Your task to perform on an android device: allow cookies in the chrome app Image 0: 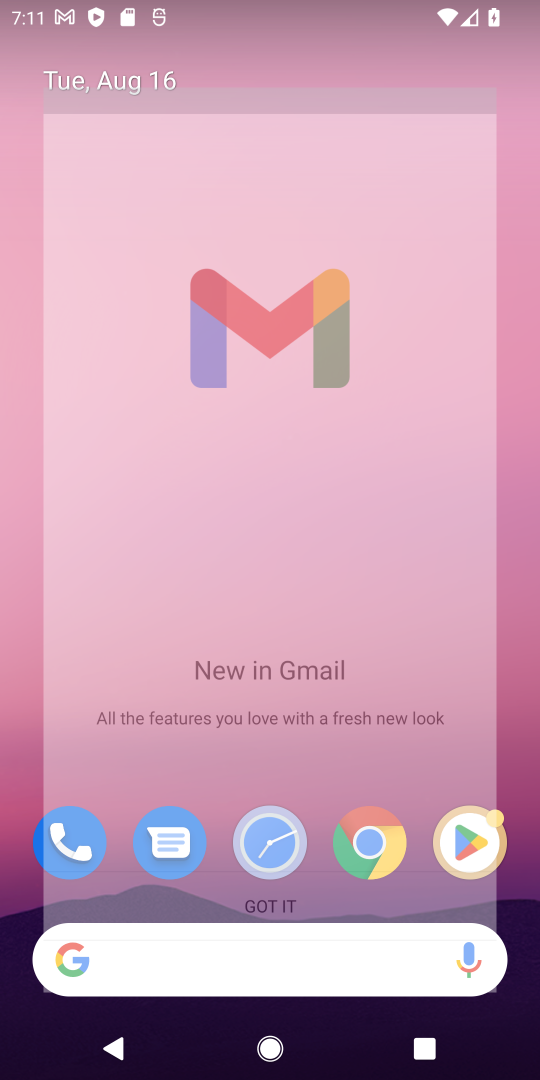
Step 0: press home button
Your task to perform on an android device: allow cookies in the chrome app Image 1: 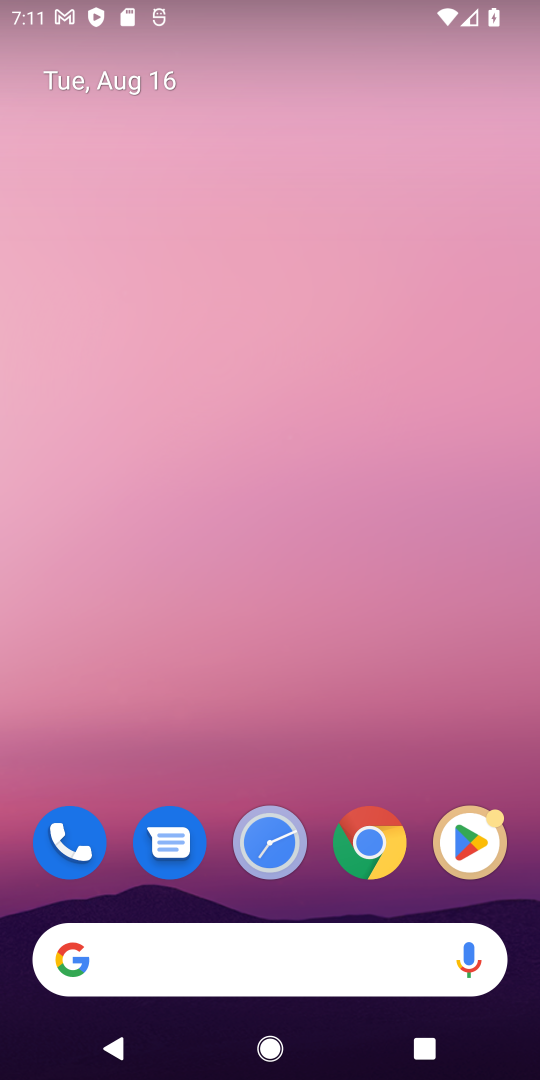
Step 1: drag from (324, 790) to (333, 32)
Your task to perform on an android device: allow cookies in the chrome app Image 2: 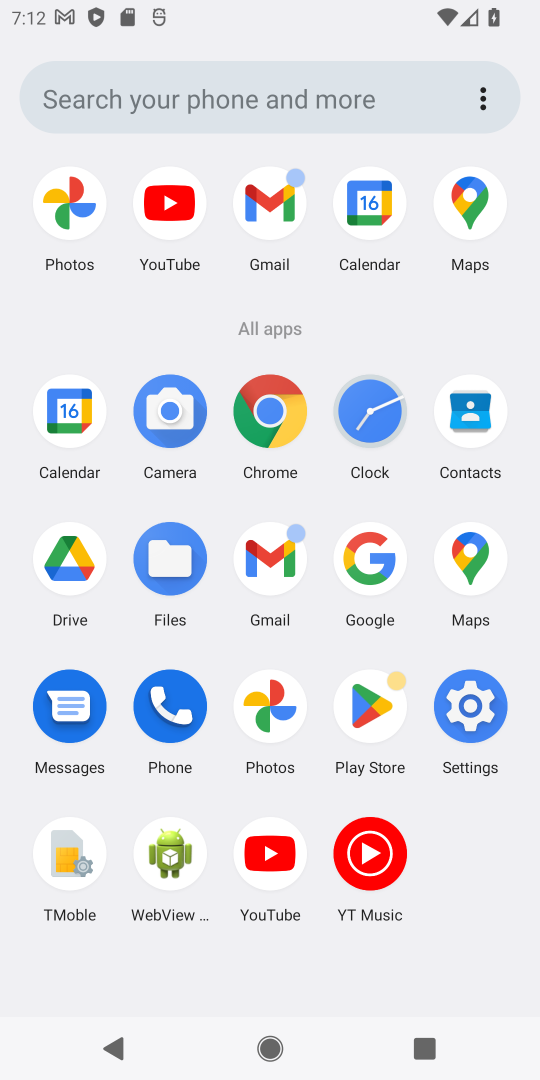
Step 2: click (268, 407)
Your task to perform on an android device: allow cookies in the chrome app Image 3: 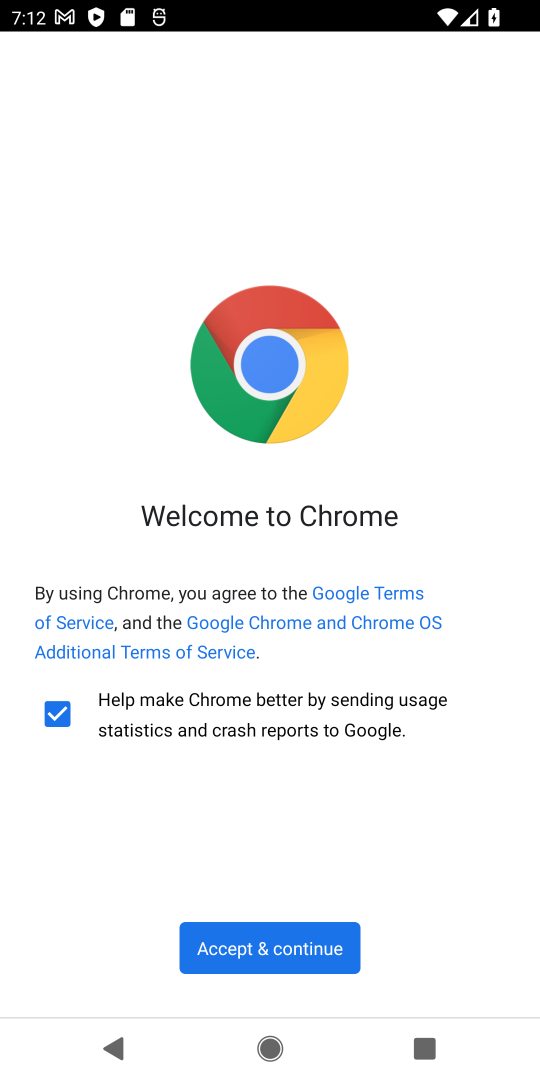
Step 3: click (262, 941)
Your task to perform on an android device: allow cookies in the chrome app Image 4: 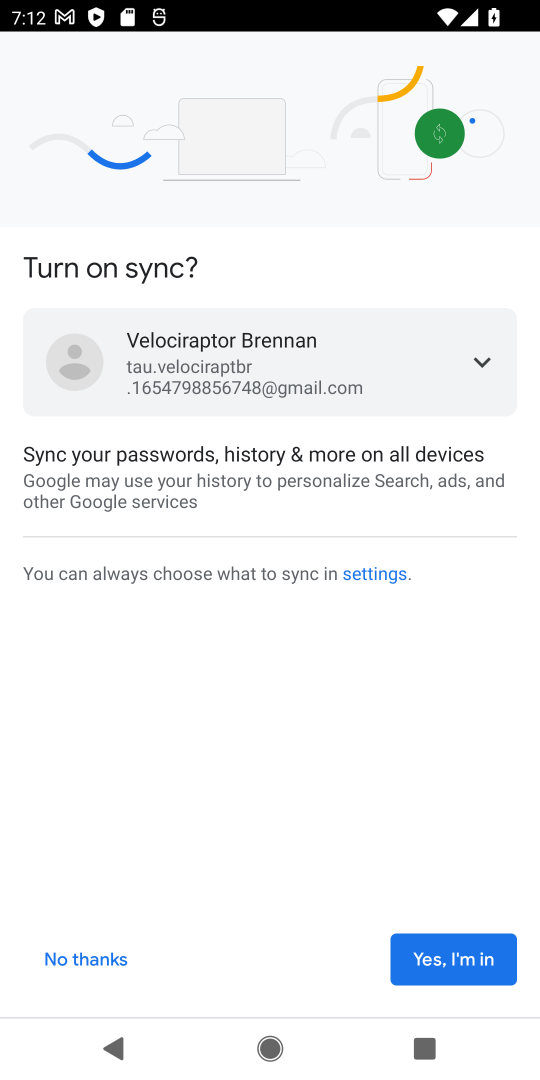
Step 4: click (440, 957)
Your task to perform on an android device: allow cookies in the chrome app Image 5: 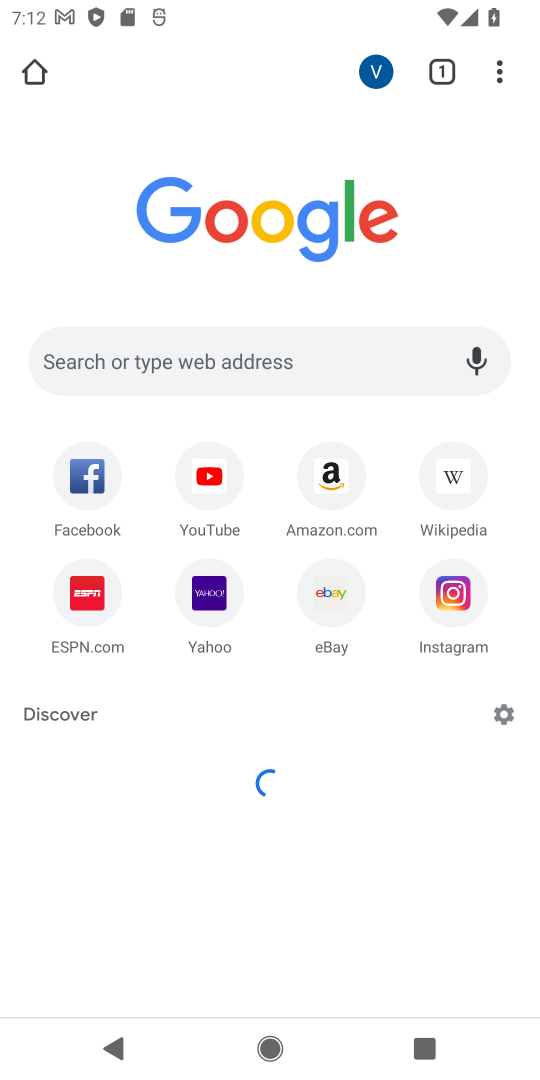
Step 5: click (454, 956)
Your task to perform on an android device: allow cookies in the chrome app Image 6: 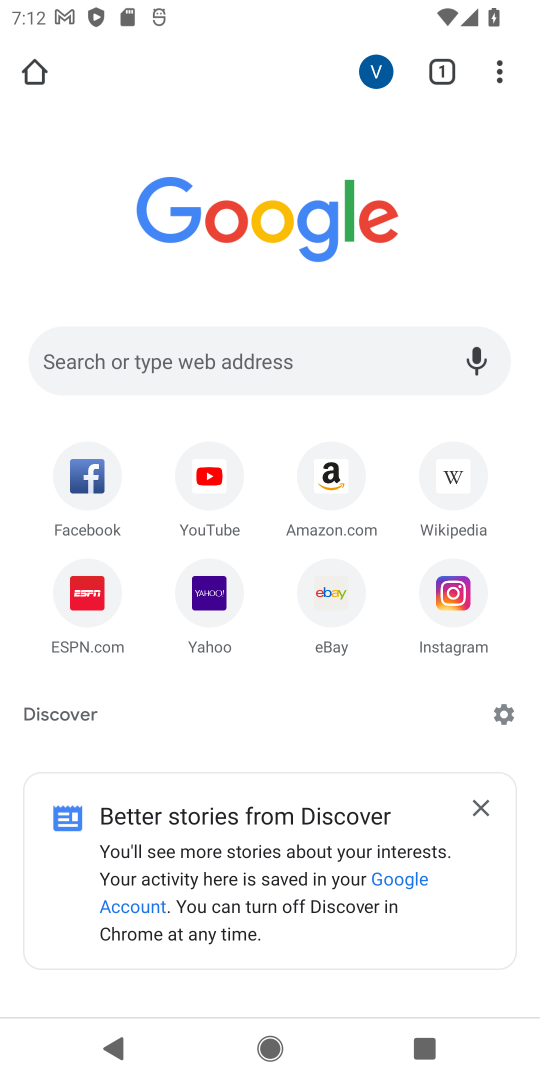
Step 6: click (496, 61)
Your task to perform on an android device: allow cookies in the chrome app Image 7: 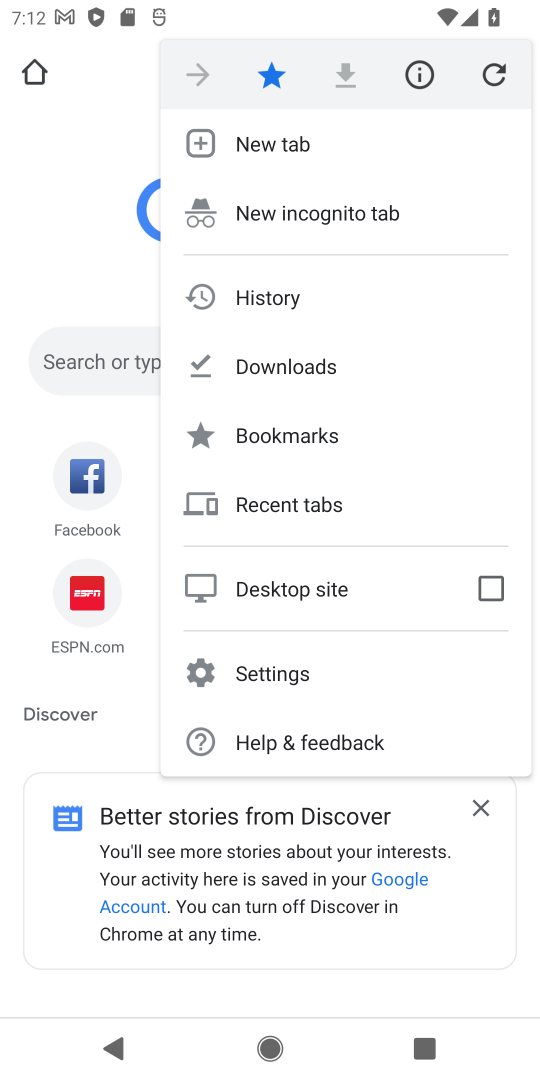
Step 7: click (311, 668)
Your task to perform on an android device: allow cookies in the chrome app Image 8: 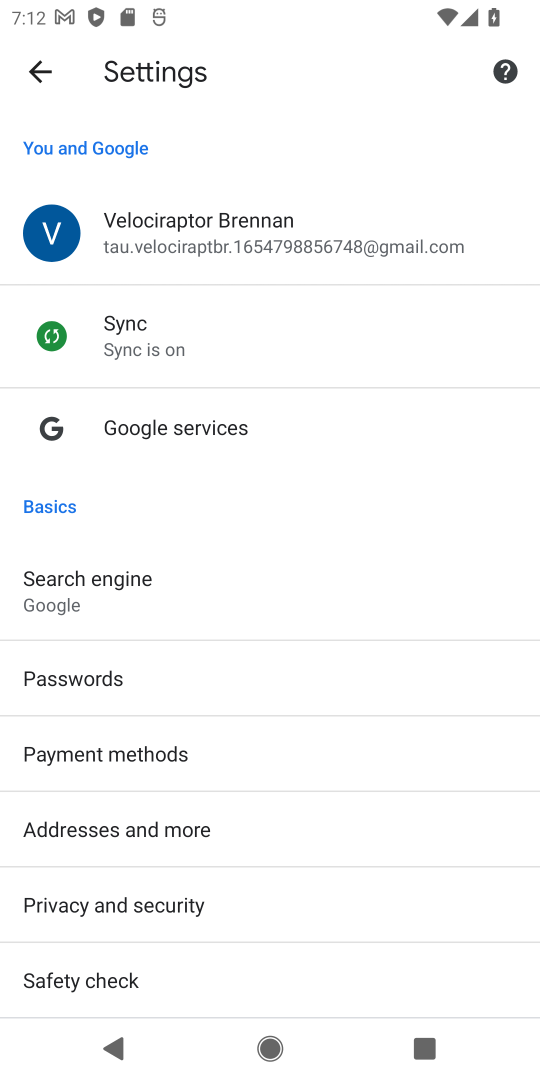
Step 8: drag from (251, 982) to (275, 143)
Your task to perform on an android device: allow cookies in the chrome app Image 9: 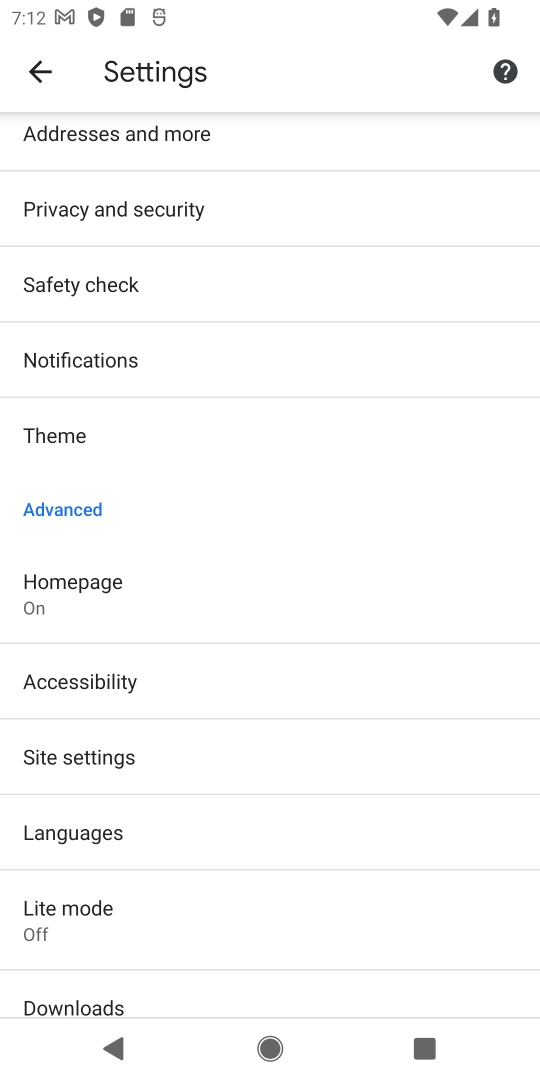
Step 9: click (156, 759)
Your task to perform on an android device: allow cookies in the chrome app Image 10: 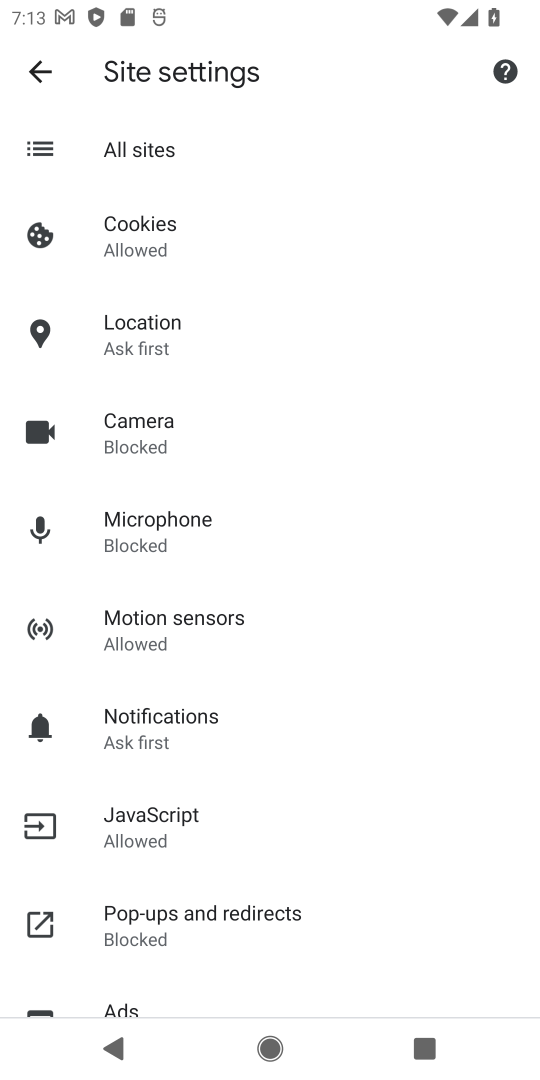
Step 10: click (210, 226)
Your task to perform on an android device: allow cookies in the chrome app Image 11: 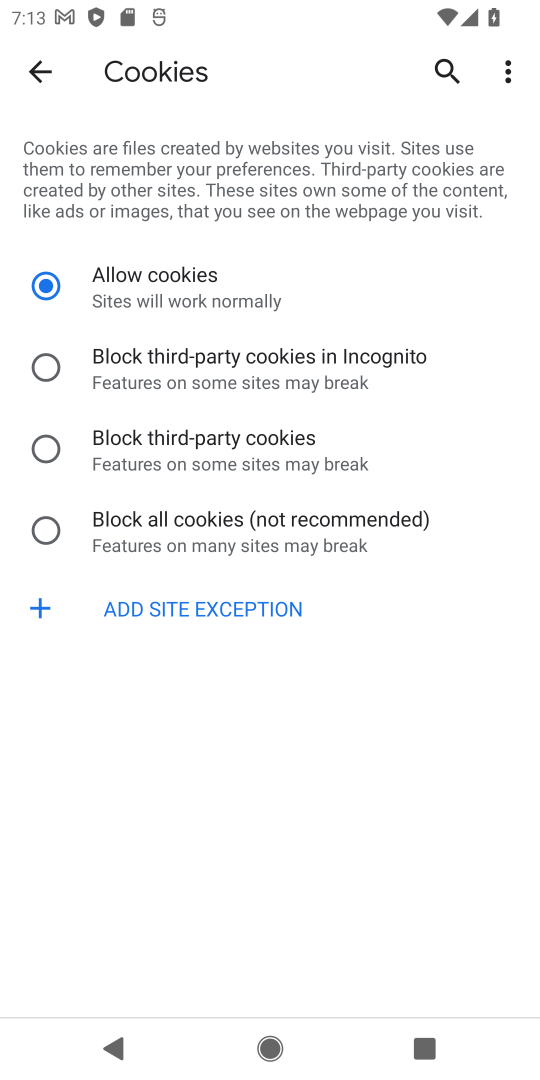
Step 11: task complete